Your task to perform on an android device: Open the phone app and click the voicemail tab. Image 0: 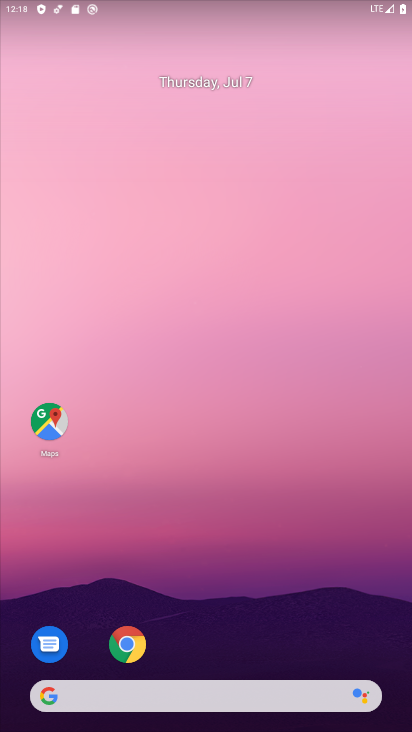
Step 0: press back button
Your task to perform on an android device: Open the phone app and click the voicemail tab. Image 1: 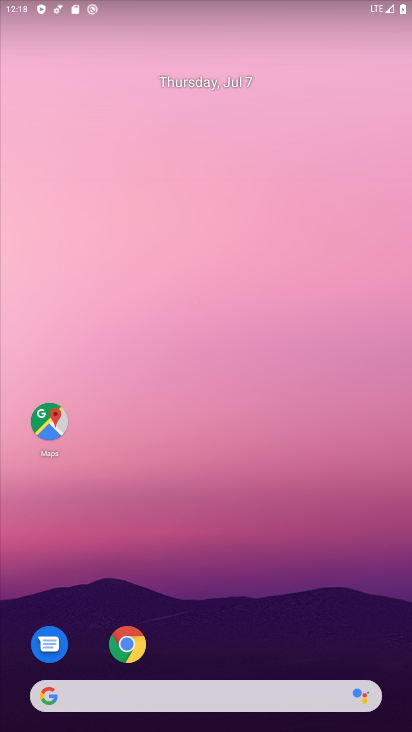
Step 1: drag from (398, 712) to (325, 133)
Your task to perform on an android device: Open the phone app and click the voicemail tab. Image 2: 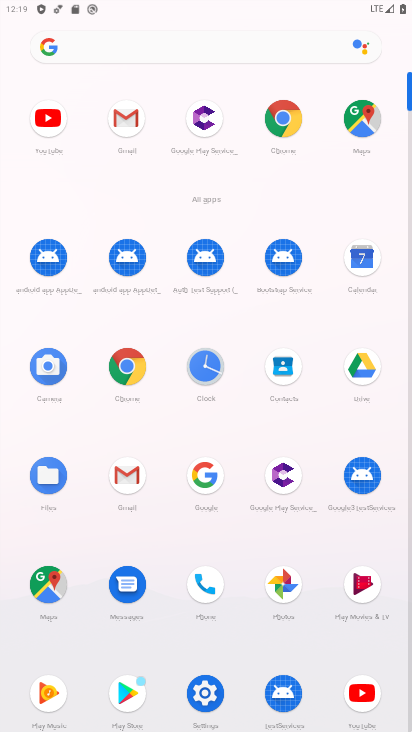
Step 2: click (199, 583)
Your task to perform on an android device: Open the phone app and click the voicemail tab. Image 3: 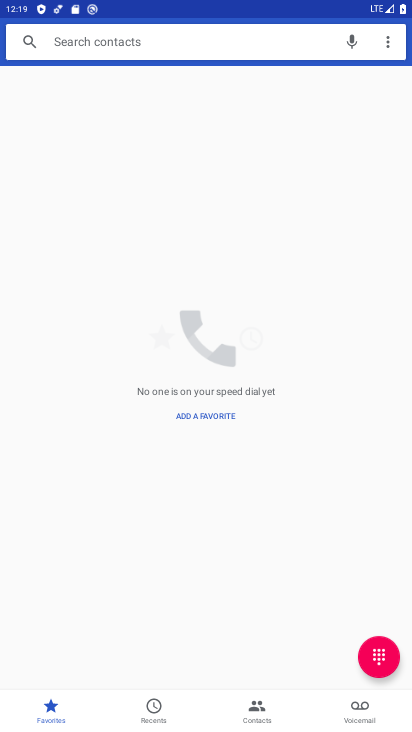
Step 3: click (343, 702)
Your task to perform on an android device: Open the phone app and click the voicemail tab. Image 4: 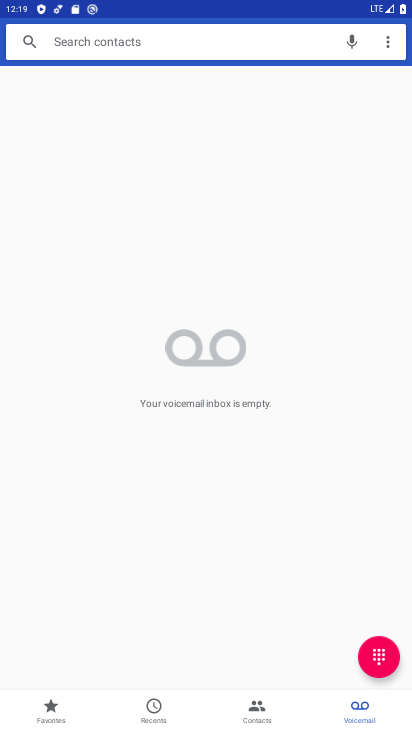
Step 4: click (363, 712)
Your task to perform on an android device: Open the phone app and click the voicemail tab. Image 5: 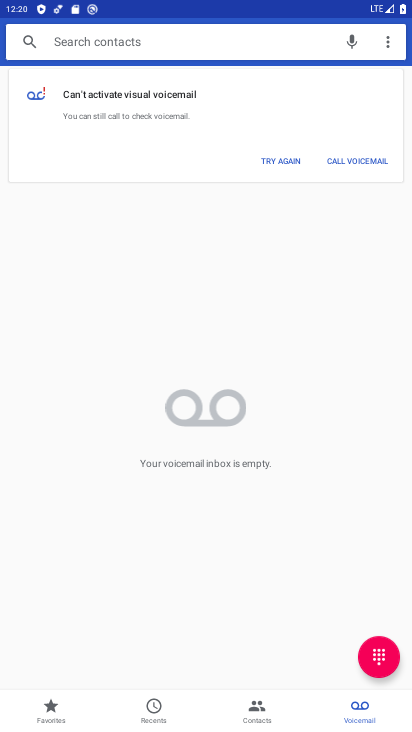
Step 5: task complete